Your task to perform on an android device: Open Google Maps Image 0: 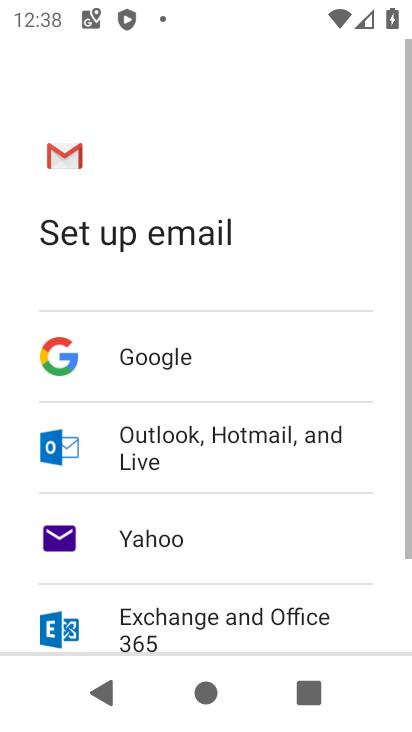
Step 0: press home button
Your task to perform on an android device: Open Google Maps Image 1: 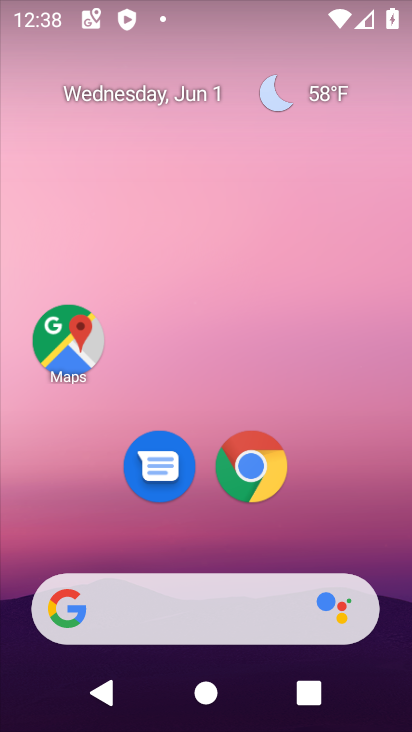
Step 1: drag from (376, 530) to (338, 185)
Your task to perform on an android device: Open Google Maps Image 2: 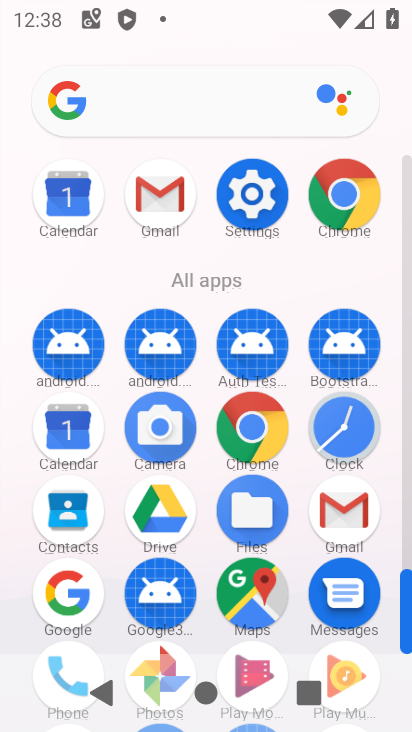
Step 2: click (258, 593)
Your task to perform on an android device: Open Google Maps Image 3: 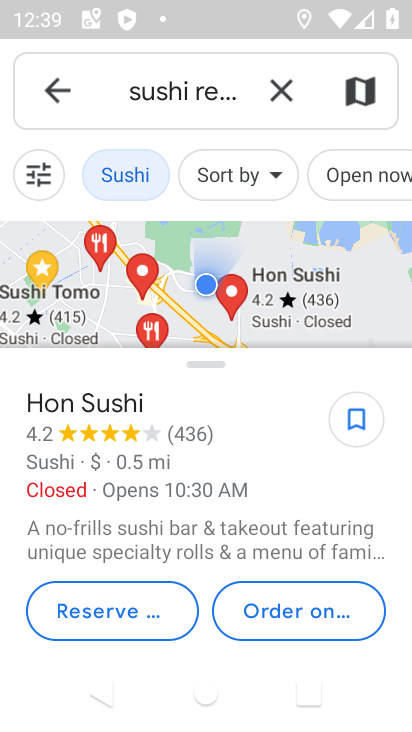
Step 3: task complete